Your task to perform on an android device: open the mobile data screen to see how much data has been used Image 0: 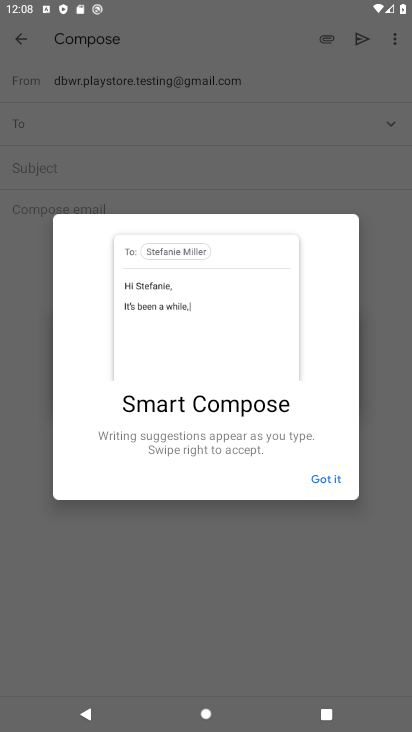
Step 0: press home button
Your task to perform on an android device: open the mobile data screen to see how much data has been used Image 1: 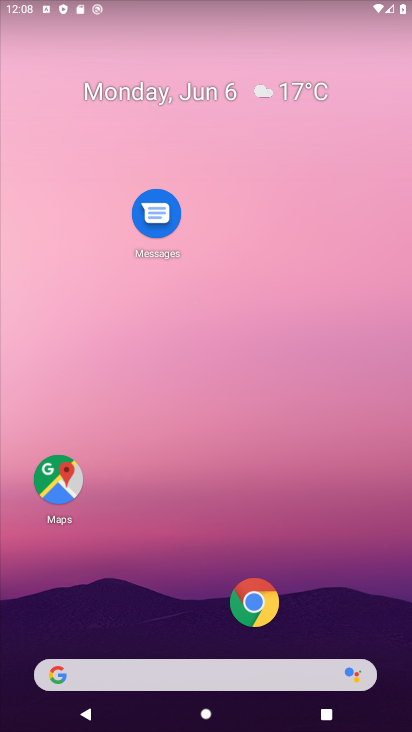
Step 1: drag from (369, 595) to (310, 89)
Your task to perform on an android device: open the mobile data screen to see how much data has been used Image 2: 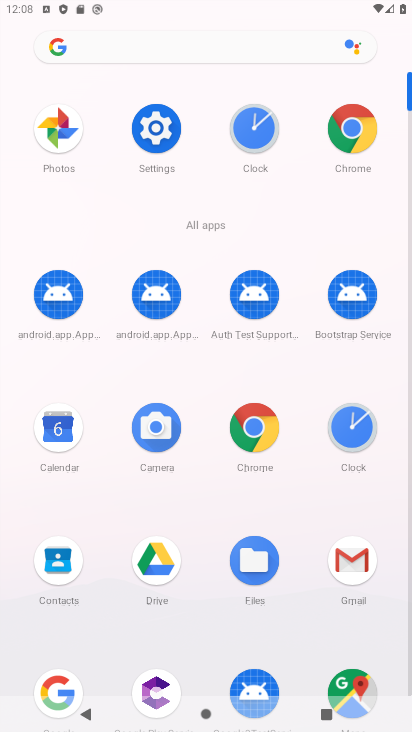
Step 2: click (161, 131)
Your task to perform on an android device: open the mobile data screen to see how much data has been used Image 3: 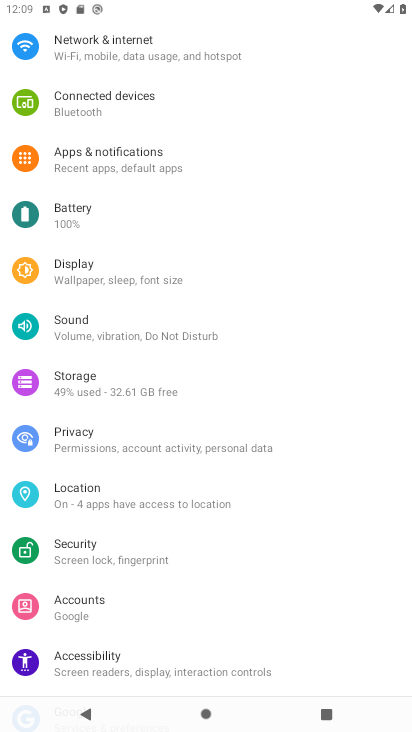
Step 3: click (185, 54)
Your task to perform on an android device: open the mobile data screen to see how much data has been used Image 4: 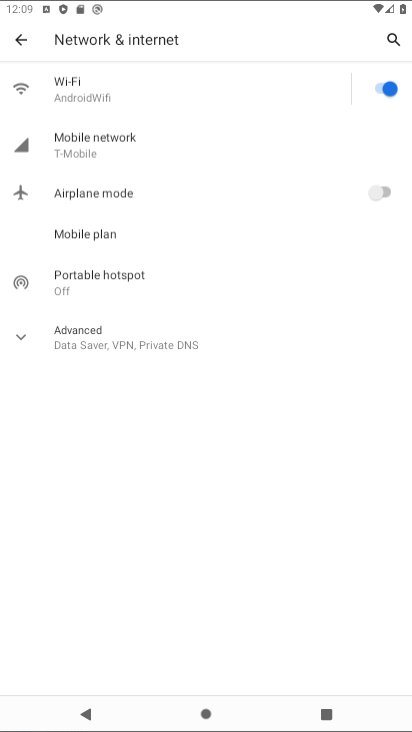
Step 4: task complete